Your task to perform on an android device: Open Google Chrome and open the bookmarks view Image 0: 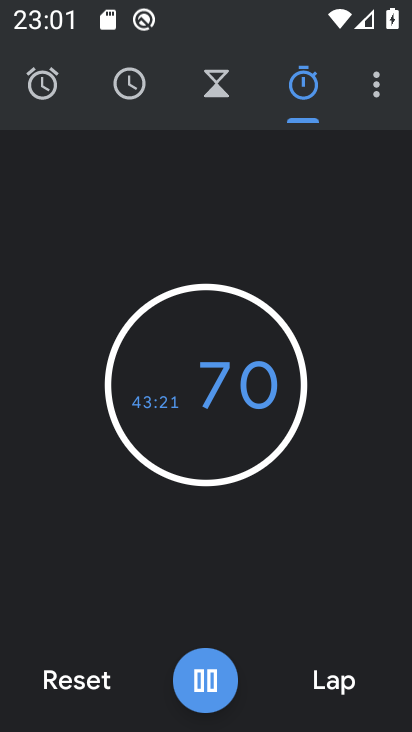
Step 0: press home button
Your task to perform on an android device: Open Google Chrome and open the bookmarks view Image 1: 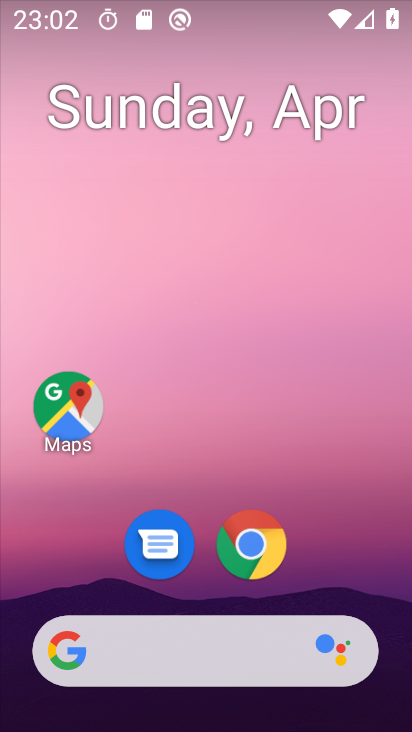
Step 1: click (243, 545)
Your task to perform on an android device: Open Google Chrome and open the bookmarks view Image 2: 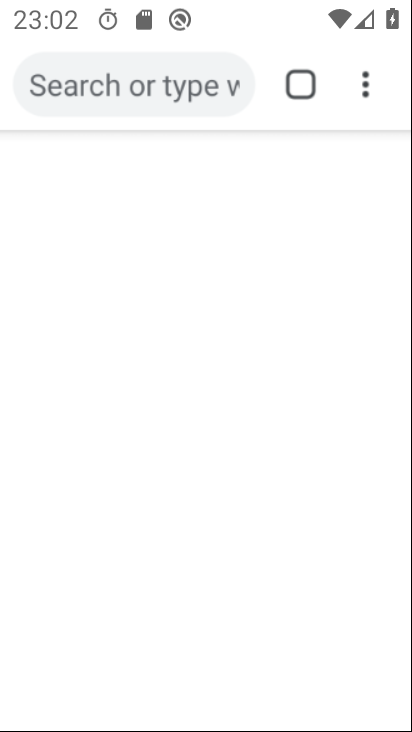
Step 2: click (355, 97)
Your task to perform on an android device: Open Google Chrome and open the bookmarks view Image 3: 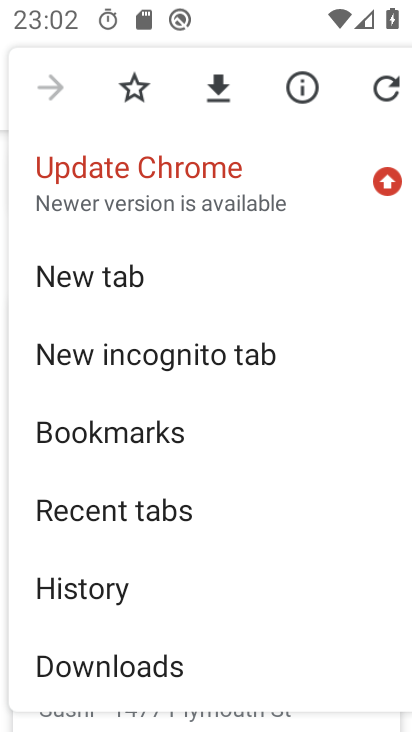
Step 3: click (191, 444)
Your task to perform on an android device: Open Google Chrome and open the bookmarks view Image 4: 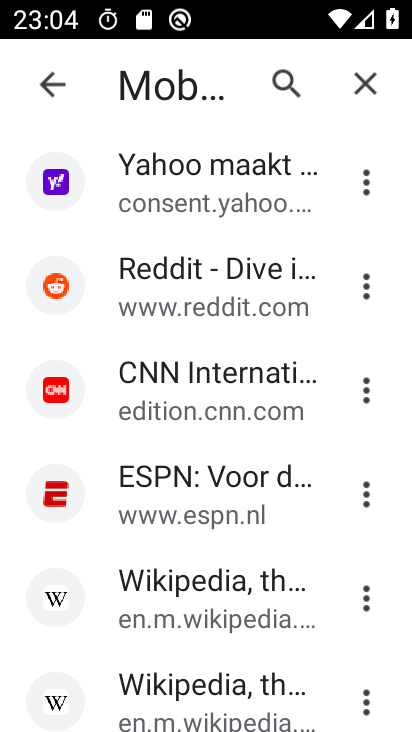
Step 4: task complete